Your task to perform on an android device: choose inbox layout in the gmail app Image 0: 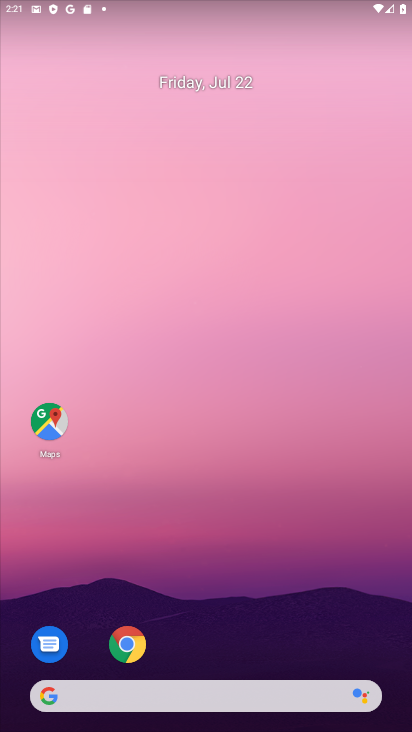
Step 0: drag from (222, 594) to (304, 226)
Your task to perform on an android device: choose inbox layout in the gmail app Image 1: 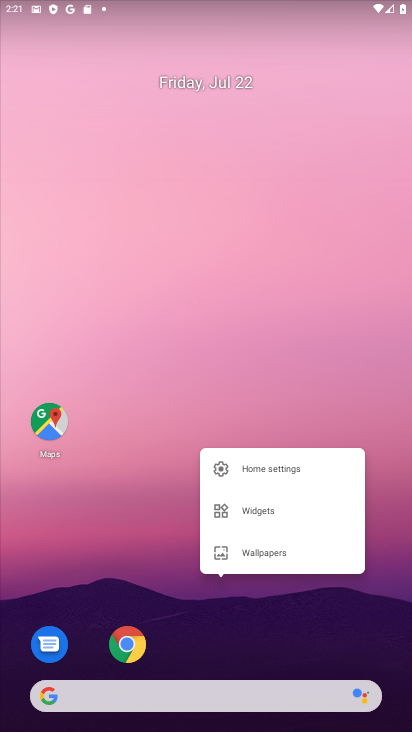
Step 1: click (210, 644)
Your task to perform on an android device: choose inbox layout in the gmail app Image 2: 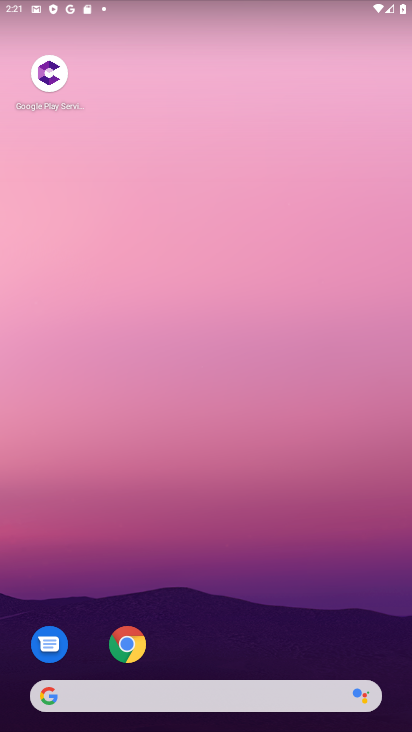
Step 2: drag from (210, 644) to (209, 376)
Your task to perform on an android device: choose inbox layout in the gmail app Image 3: 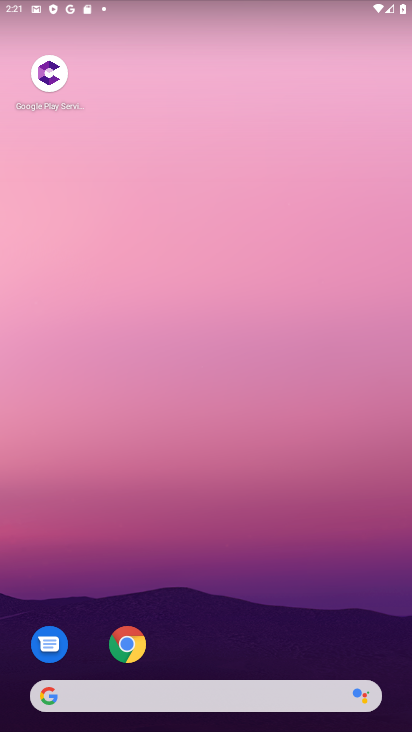
Step 3: drag from (194, 632) to (210, 268)
Your task to perform on an android device: choose inbox layout in the gmail app Image 4: 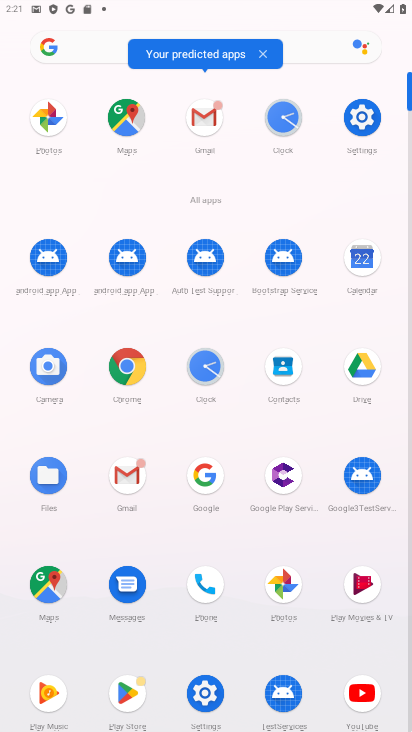
Step 4: click (194, 111)
Your task to perform on an android device: choose inbox layout in the gmail app Image 5: 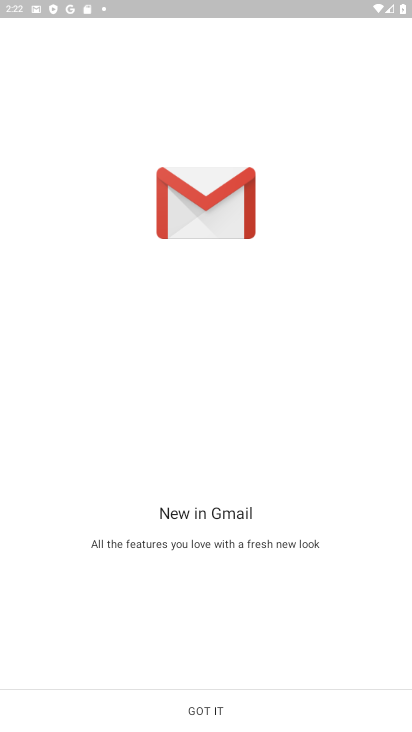
Step 5: click (214, 709)
Your task to perform on an android device: choose inbox layout in the gmail app Image 6: 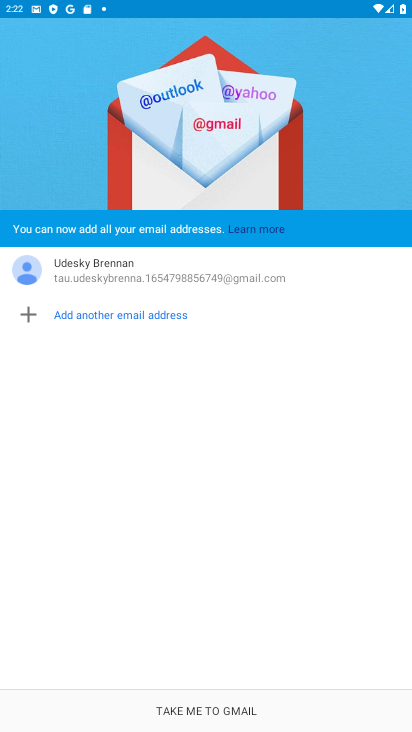
Step 6: click (214, 709)
Your task to perform on an android device: choose inbox layout in the gmail app Image 7: 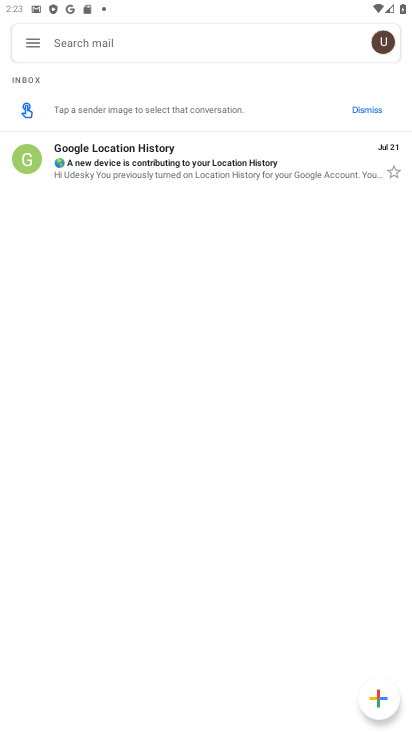
Step 7: press home button
Your task to perform on an android device: choose inbox layout in the gmail app Image 8: 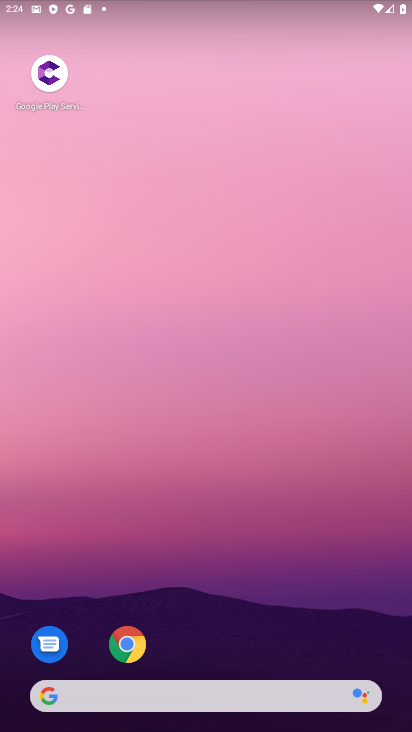
Step 8: drag from (204, 613) to (316, 150)
Your task to perform on an android device: choose inbox layout in the gmail app Image 9: 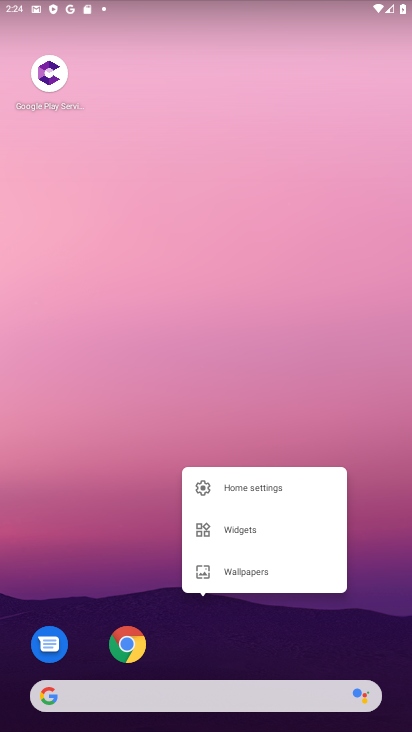
Step 9: click (255, 330)
Your task to perform on an android device: choose inbox layout in the gmail app Image 10: 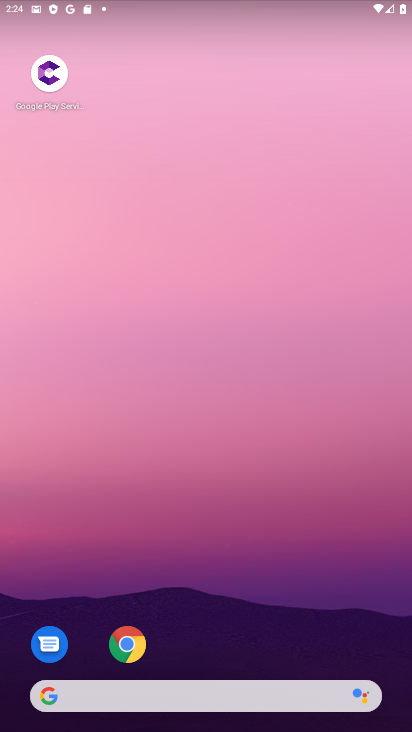
Step 10: drag from (252, 603) to (252, 263)
Your task to perform on an android device: choose inbox layout in the gmail app Image 11: 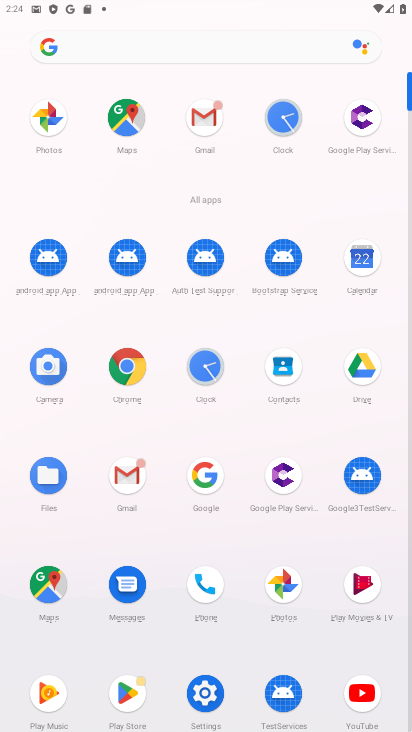
Step 11: click (136, 475)
Your task to perform on an android device: choose inbox layout in the gmail app Image 12: 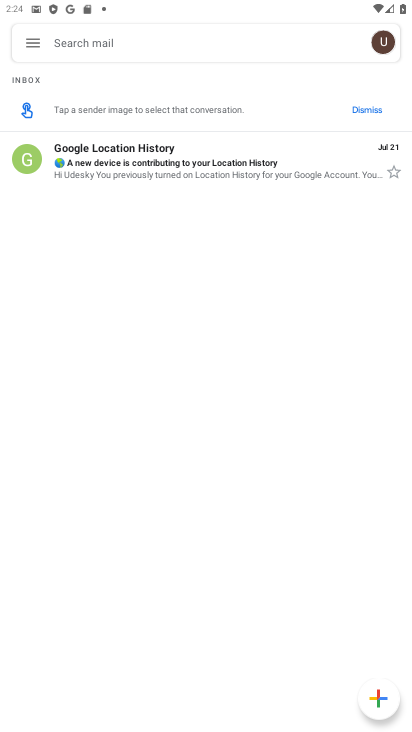
Step 12: click (34, 48)
Your task to perform on an android device: choose inbox layout in the gmail app Image 13: 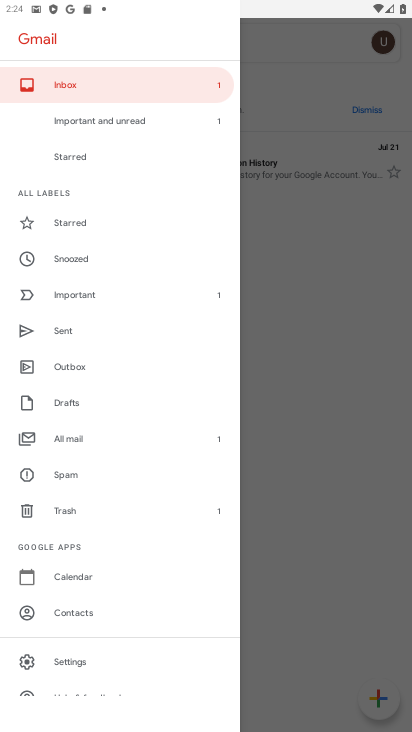
Step 13: click (58, 122)
Your task to perform on an android device: choose inbox layout in the gmail app Image 14: 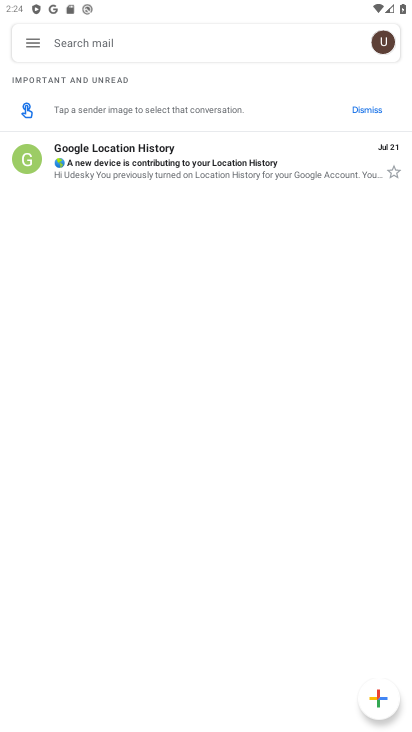
Step 14: task complete